Your task to perform on an android device: toggle wifi Image 0: 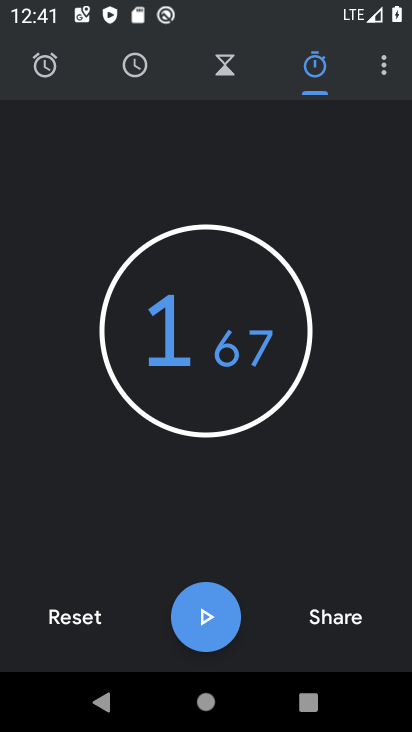
Step 0: press home button
Your task to perform on an android device: toggle wifi Image 1: 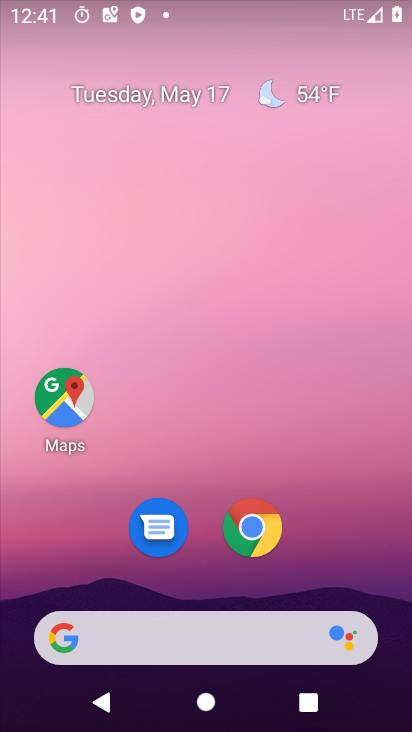
Step 1: drag from (229, 641) to (241, 203)
Your task to perform on an android device: toggle wifi Image 2: 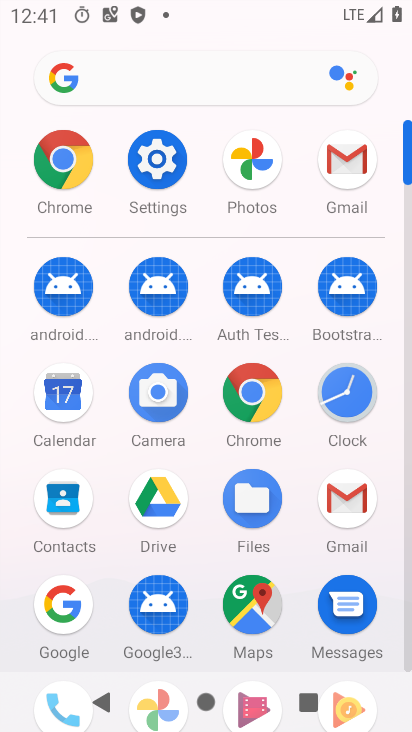
Step 2: click (150, 159)
Your task to perform on an android device: toggle wifi Image 3: 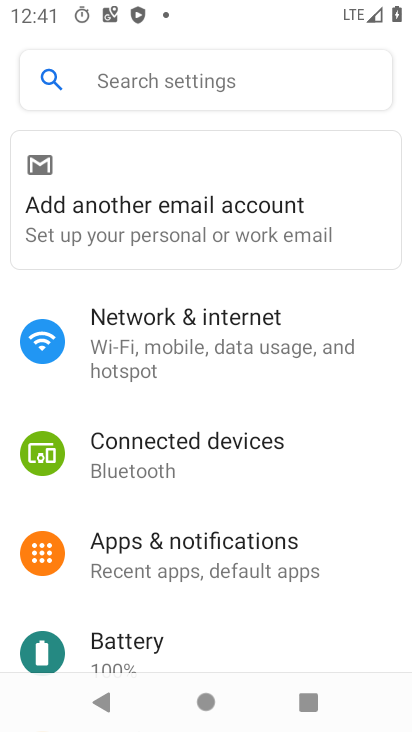
Step 3: click (178, 322)
Your task to perform on an android device: toggle wifi Image 4: 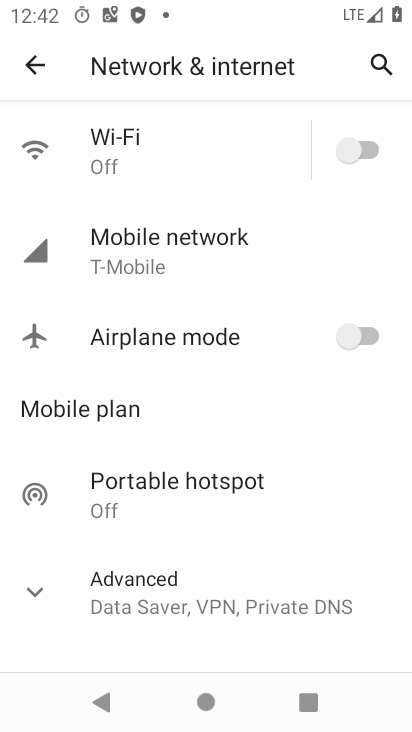
Step 4: click (204, 151)
Your task to perform on an android device: toggle wifi Image 5: 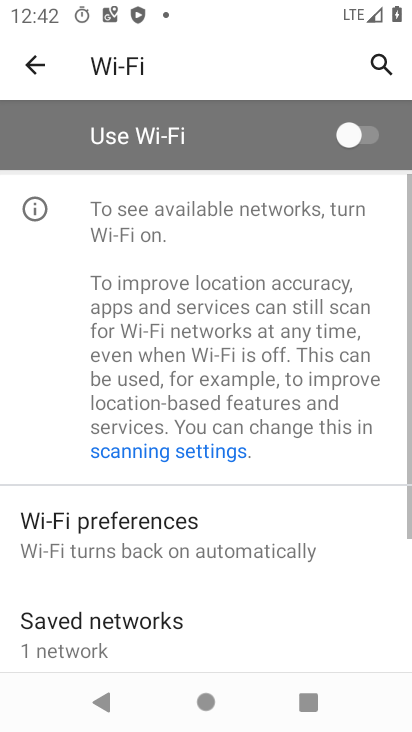
Step 5: click (355, 145)
Your task to perform on an android device: toggle wifi Image 6: 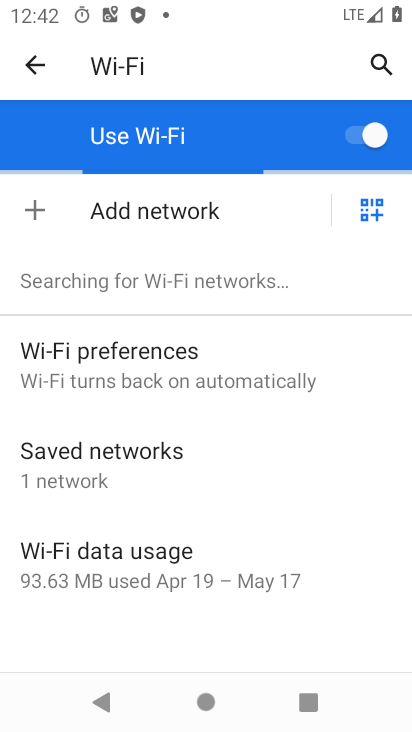
Step 6: task complete